Your task to perform on an android device: Go to Google Image 0: 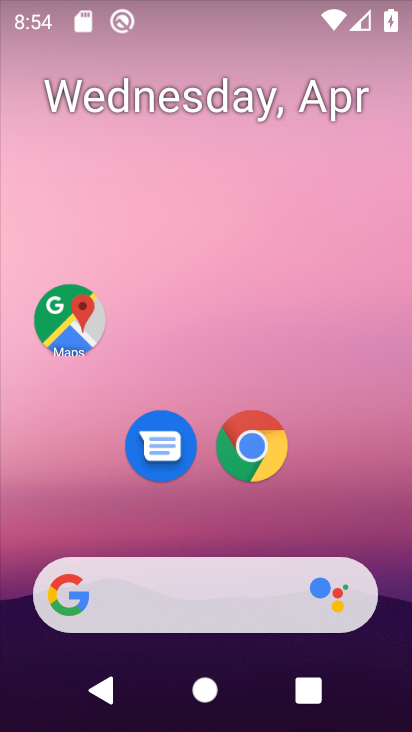
Step 0: drag from (326, 499) to (333, 203)
Your task to perform on an android device: Go to Google Image 1: 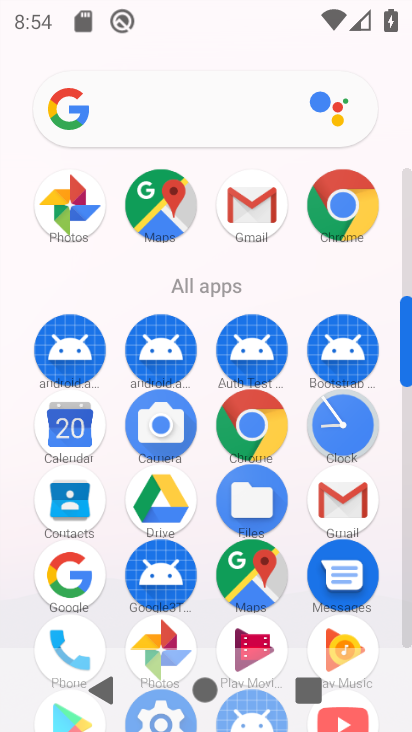
Step 1: click (70, 575)
Your task to perform on an android device: Go to Google Image 2: 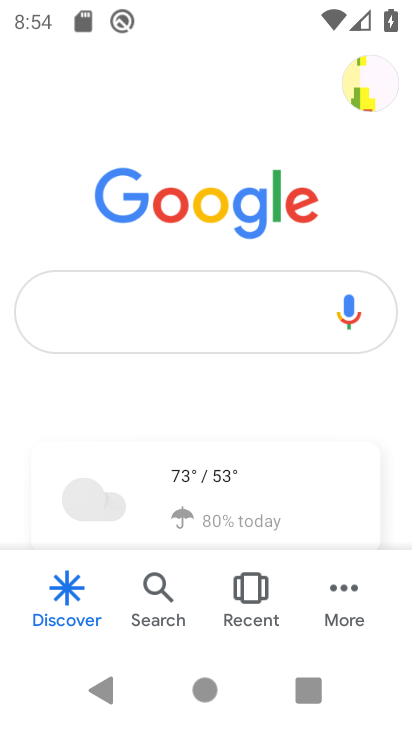
Step 2: task complete